Your task to perform on an android device: check google app version Image 0: 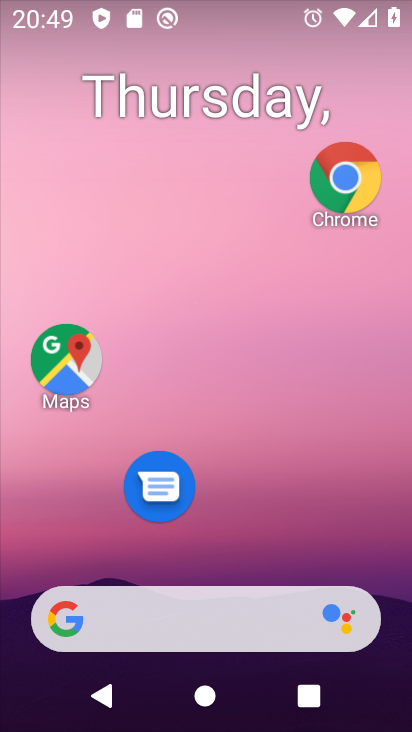
Step 0: drag from (210, 559) to (236, 0)
Your task to perform on an android device: check google app version Image 1: 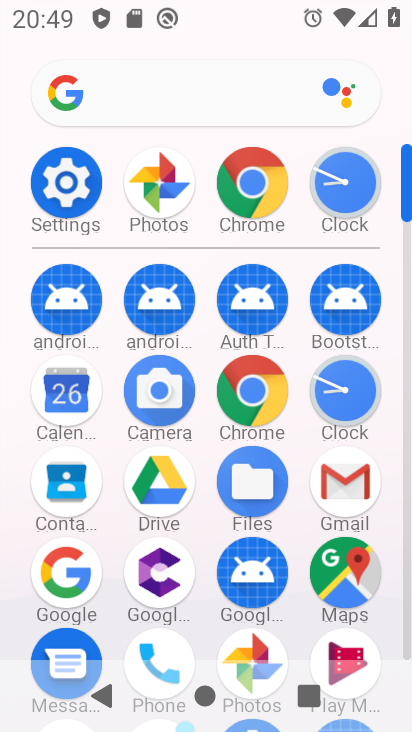
Step 1: click (71, 585)
Your task to perform on an android device: check google app version Image 2: 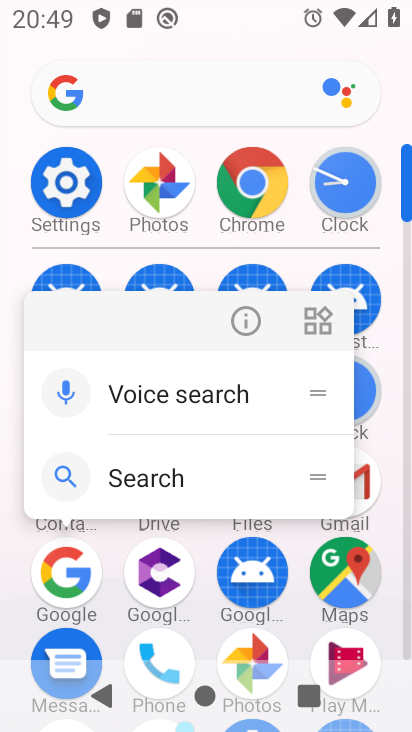
Step 2: click (253, 328)
Your task to perform on an android device: check google app version Image 3: 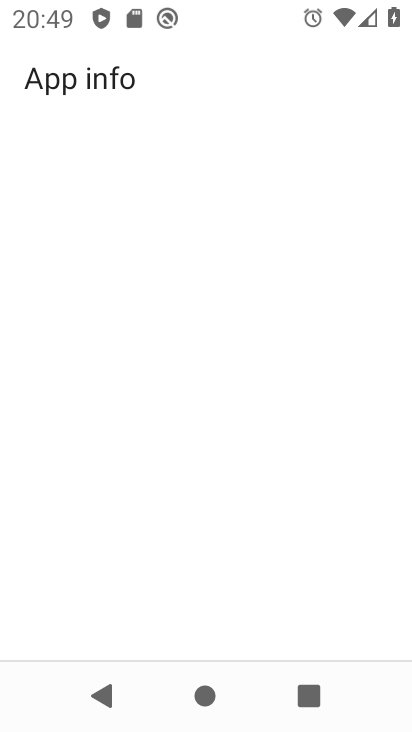
Step 3: drag from (264, 543) to (305, 118)
Your task to perform on an android device: check google app version Image 4: 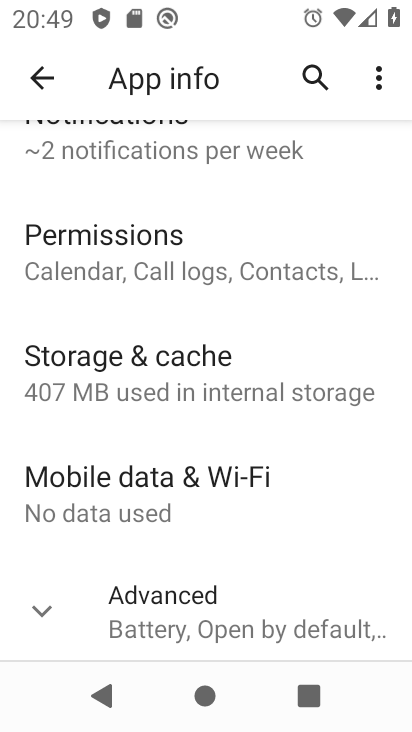
Step 4: click (199, 618)
Your task to perform on an android device: check google app version Image 5: 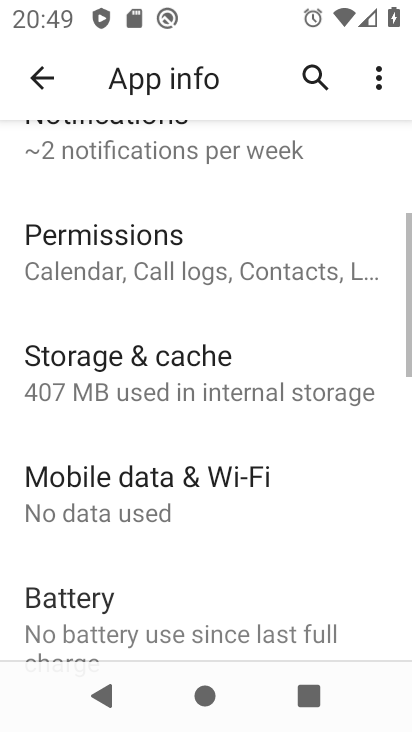
Step 5: task complete